Your task to perform on an android device: toggle location history Image 0: 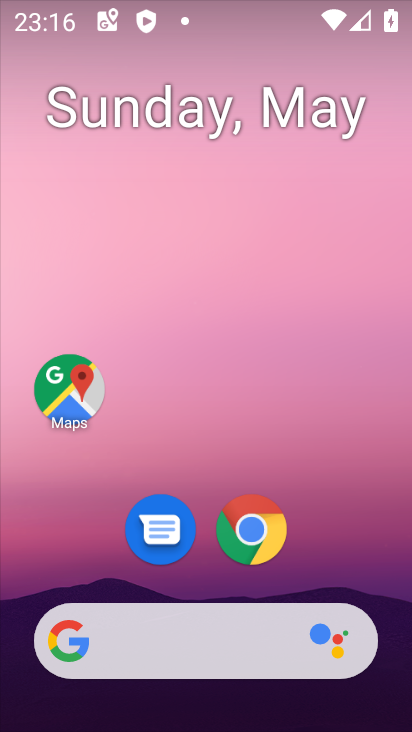
Step 0: drag from (380, 567) to (319, 175)
Your task to perform on an android device: toggle location history Image 1: 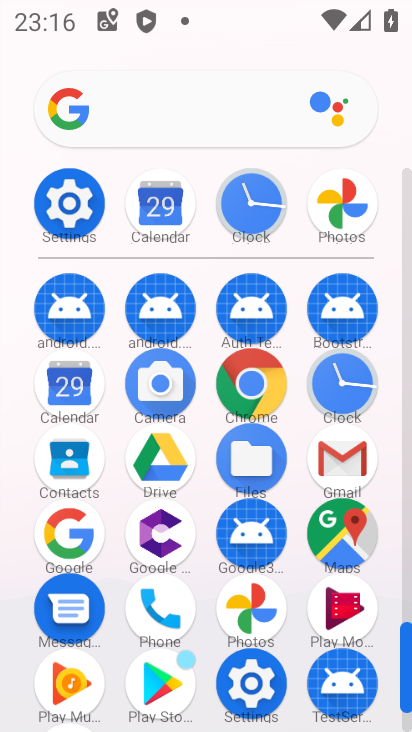
Step 1: click (76, 231)
Your task to perform on an android device: toggle location history Image 2: 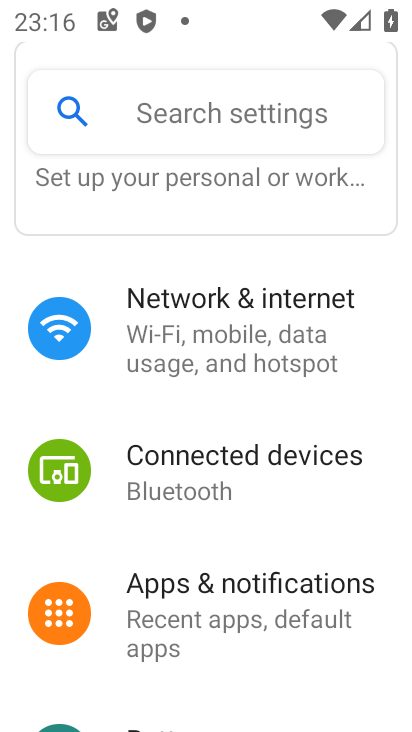
Step 2: task complete